Your task to perform on an android device: toggle pop-ups in chrome Image 0: 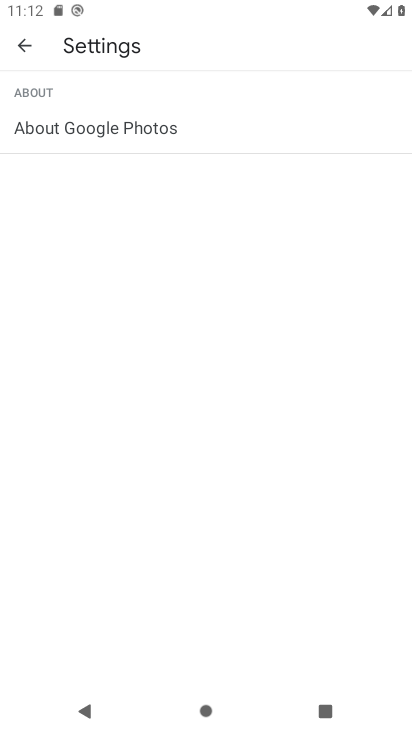
Step 0: press home button
Your task to perform on an android device: toggle pop-ups in chrome Image 1: 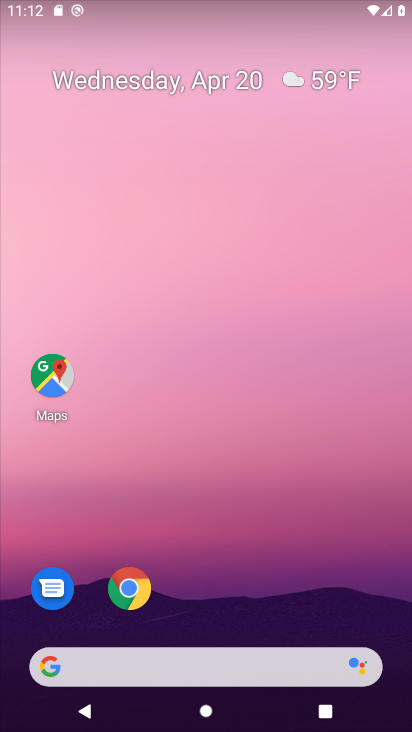
Step 1: click (129, 585)
Your task to perform on an android device: toggle pop-ups in chrome Image 2: 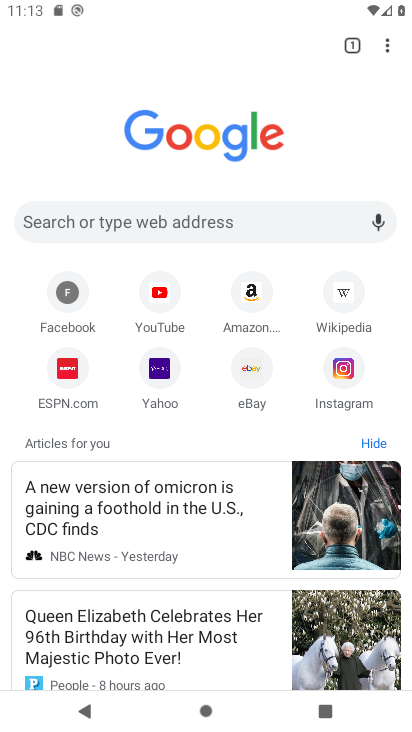
Step 2: click (383, 48)
Your task to perform on an android device: toggle pop-ups in chrome Image 3: 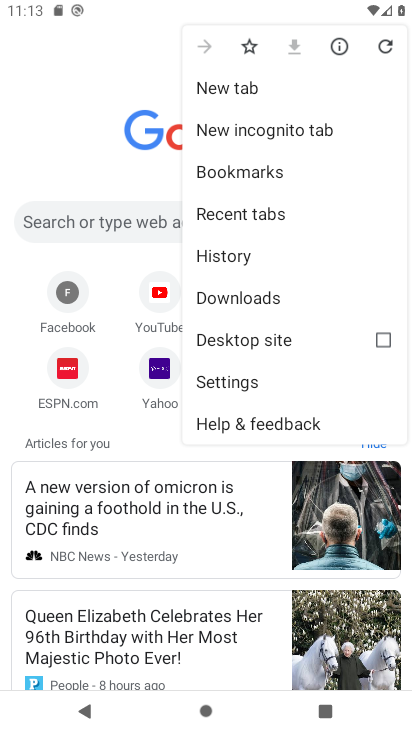
Step 3: click (232, 370)
Your task to perform on an android device: toggle pop-ups in chrome Image 4: 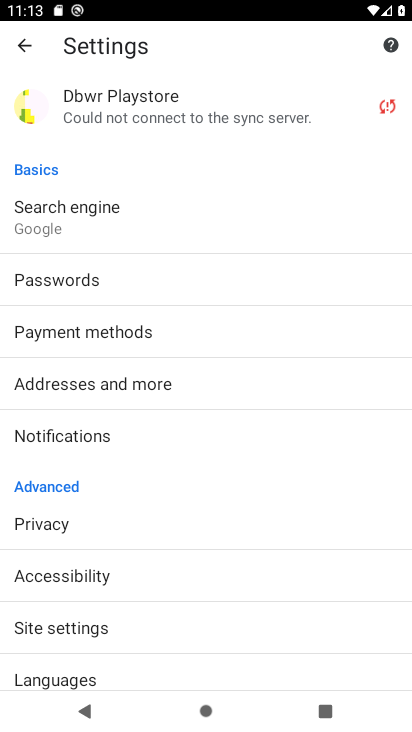
Step 4: drag from (161, 600) to (192, 379)
Your task to perform on an android device: toggle pop-ups in chrome Image 5: 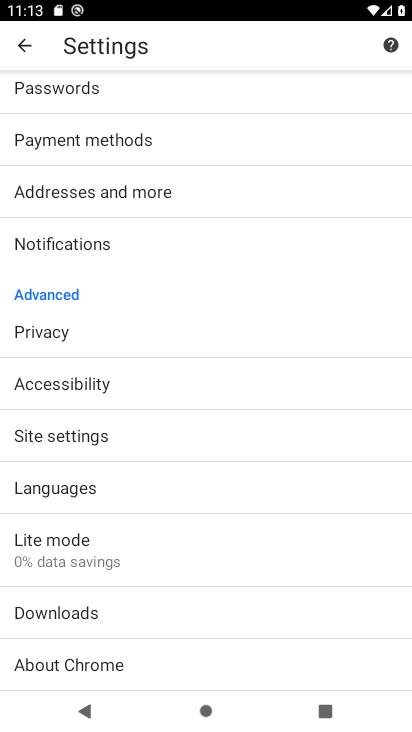
Step 5: click (72, 432)
Your task to perform on an android device: toggle pop-ups in chrome Image 6: 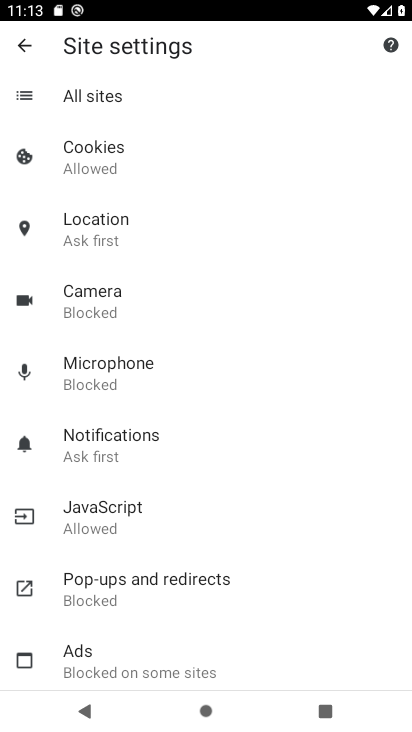
Step 6: click (95, 587)
Your task to perform on an android device: toggle pop-ups in chrome Image 7: 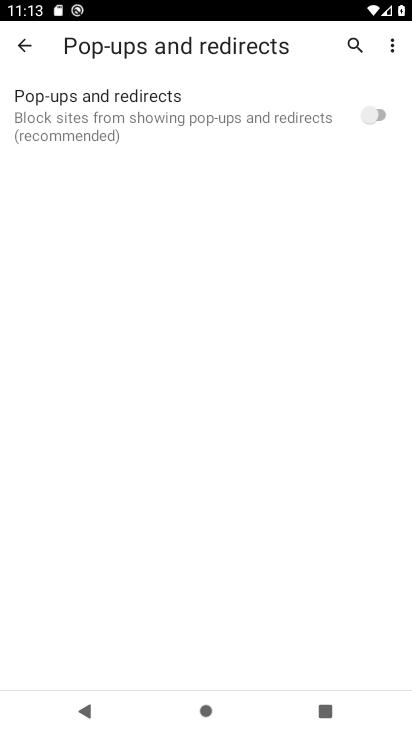
Step 7: click (382, 111)
Your task to perform on an android device: toggle pop-ups in chrome Image 8: 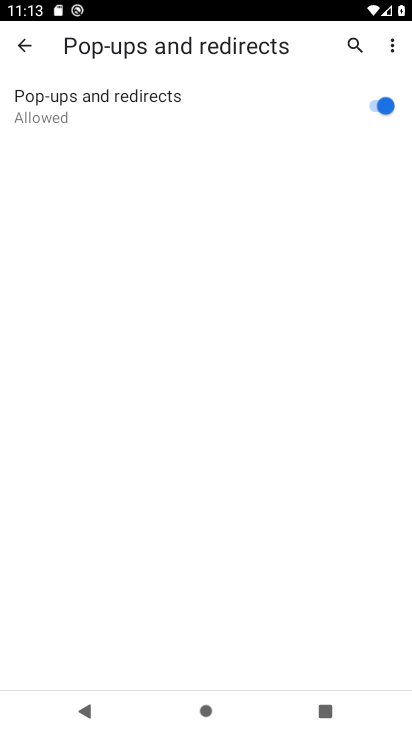
Step 8: task complete